Your task to perform on an android device: snooze an email in the gmail app Image 0: 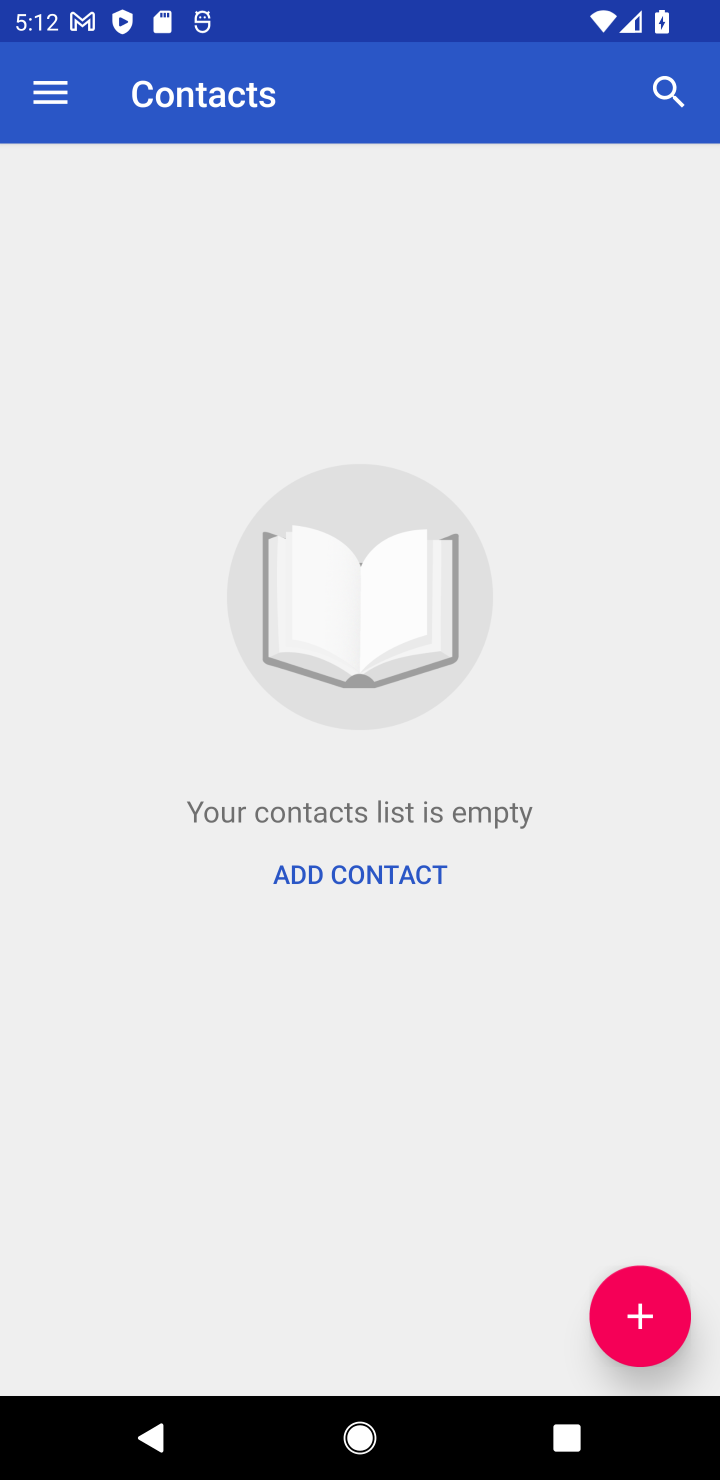
Step 0: press home button
Your task to perform on an android device: snooze an email in the gmail app Image 1: 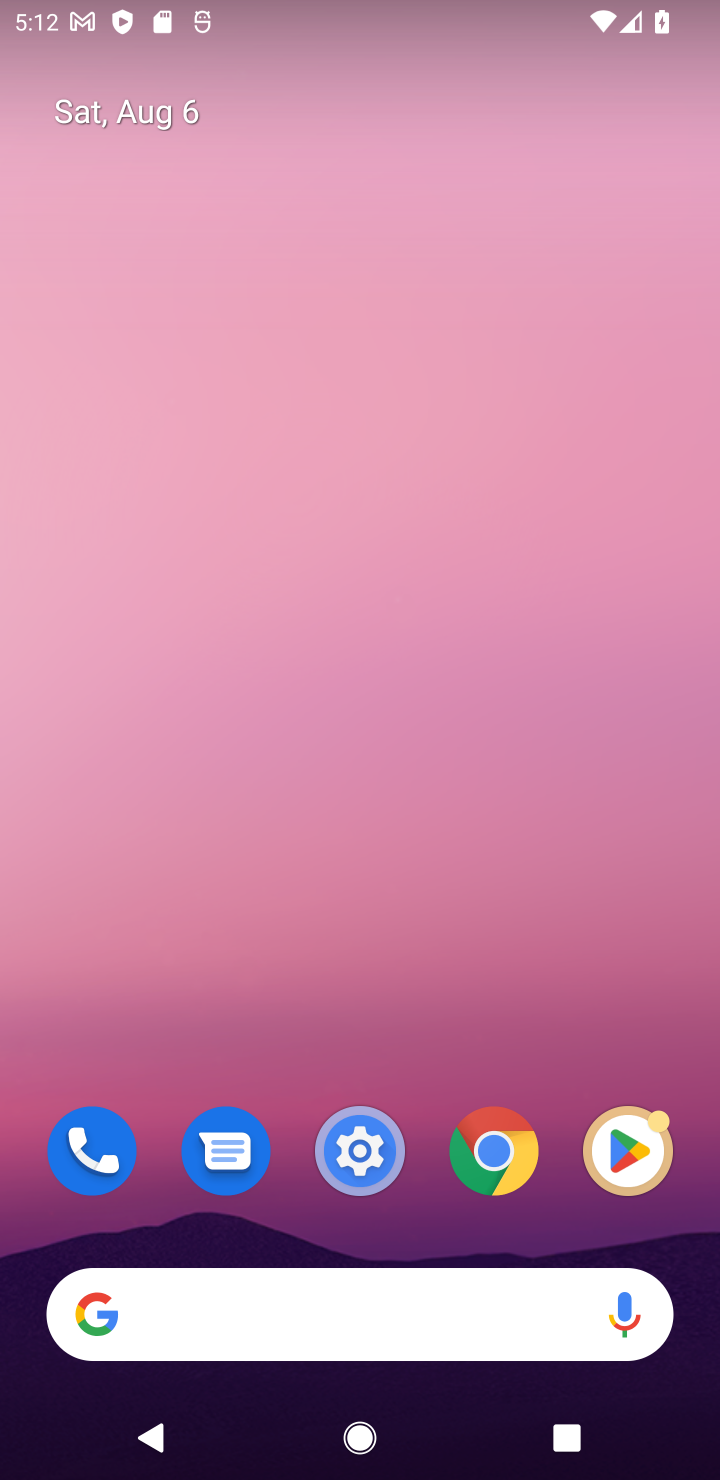
Step 1: drag from (265, 1388) to (248, 294)
Your task to perform on an android device: snooze an email in the gmail app Image 2: 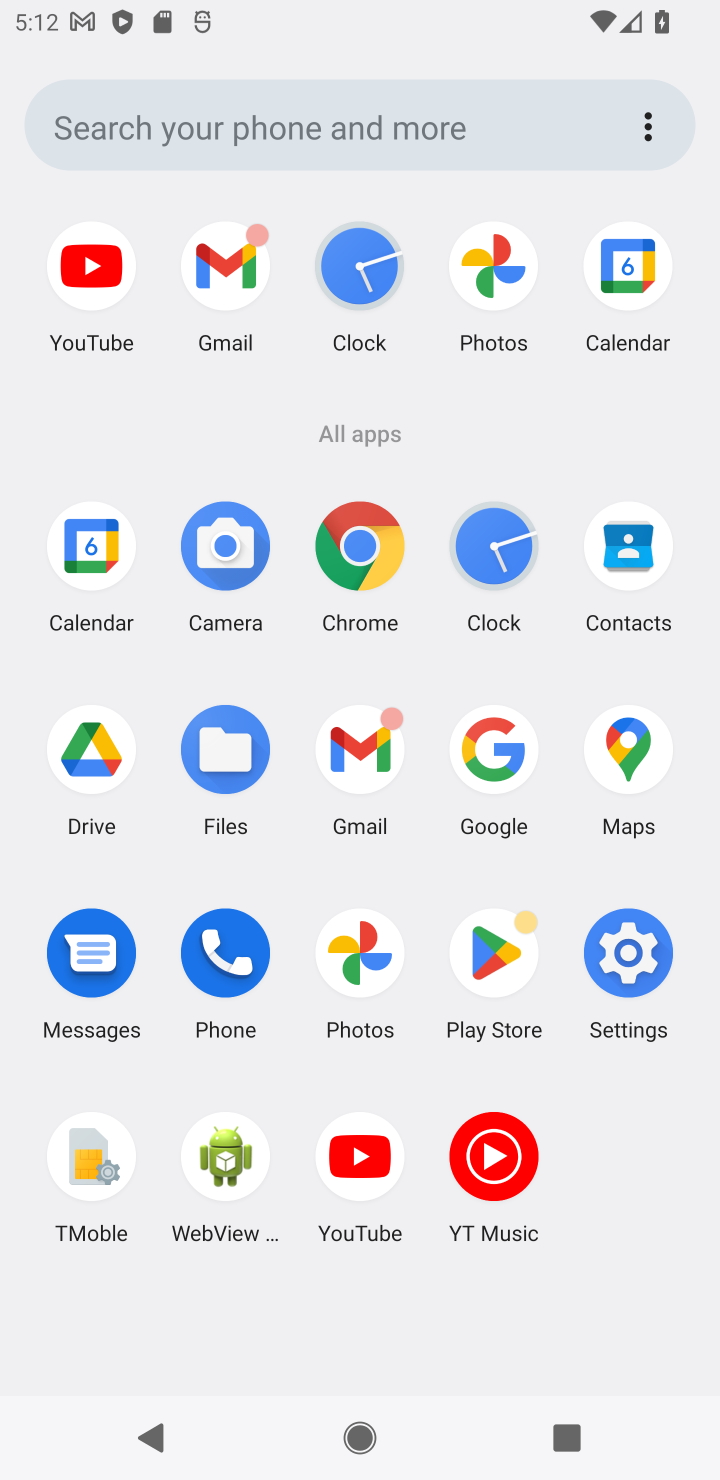
Step 2: click (387, 737)
Your task to perform on an android device: snooze an email in the gmail app Image 3: 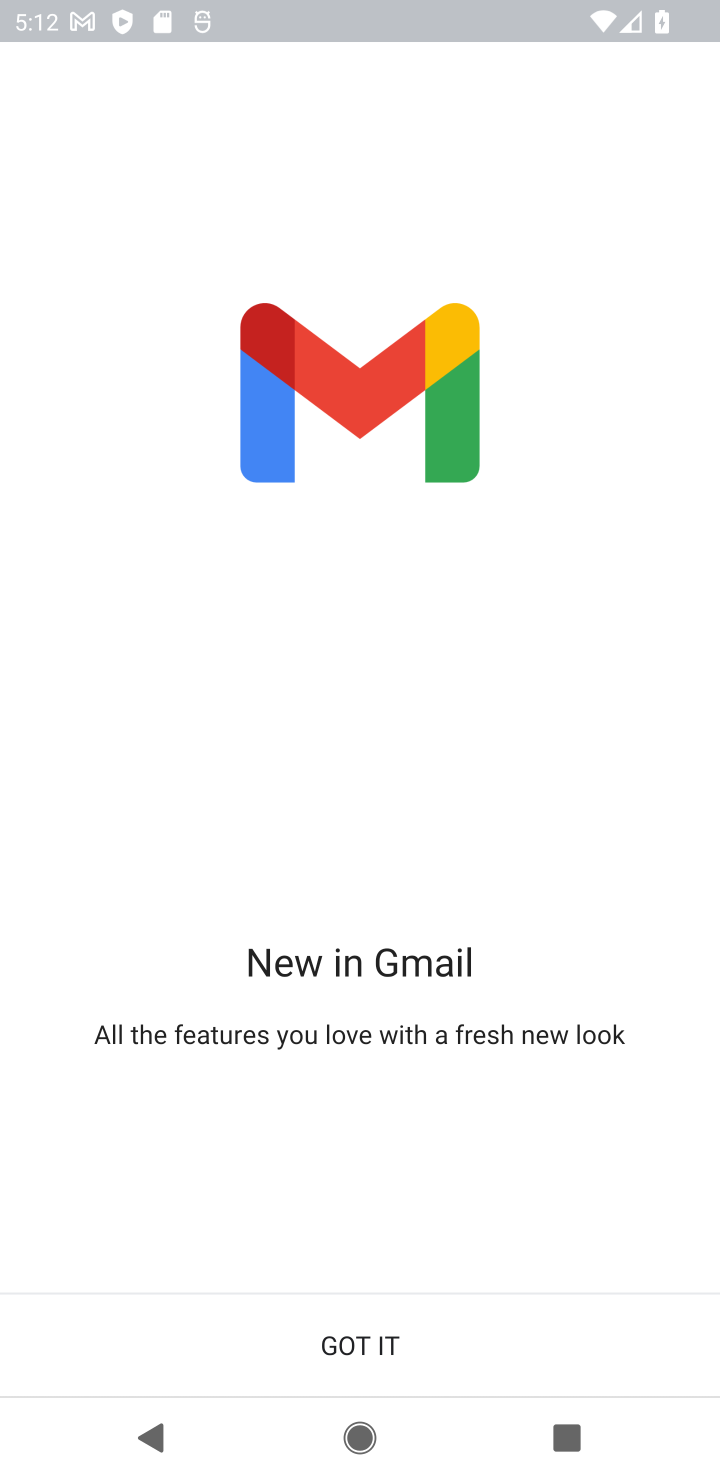
Step 3: click (355, 1361)
Your task to perform on an android device: snooze an email in the gmail app Image 4: 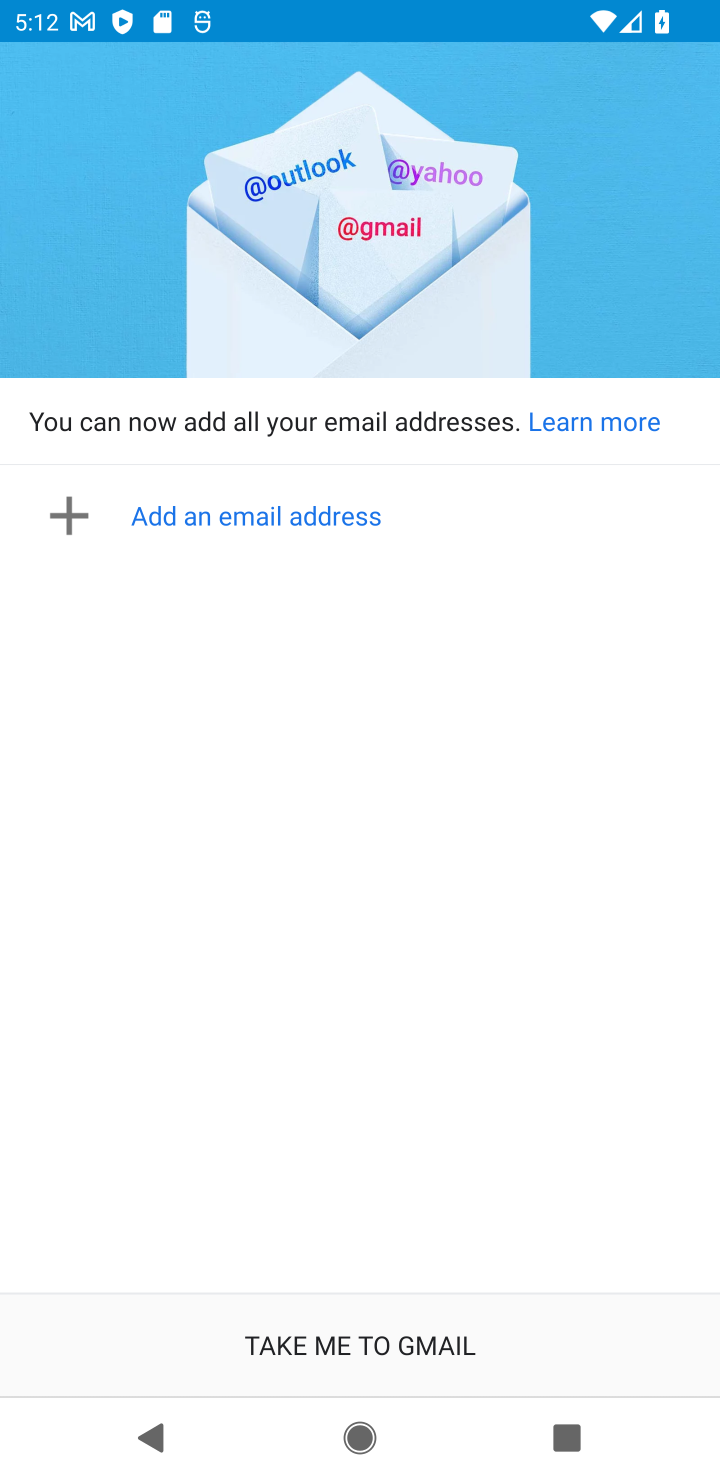
Step 4: click (359, 1355)
Your task to perform on an android device: snooze an email in the gmail app Image 5: 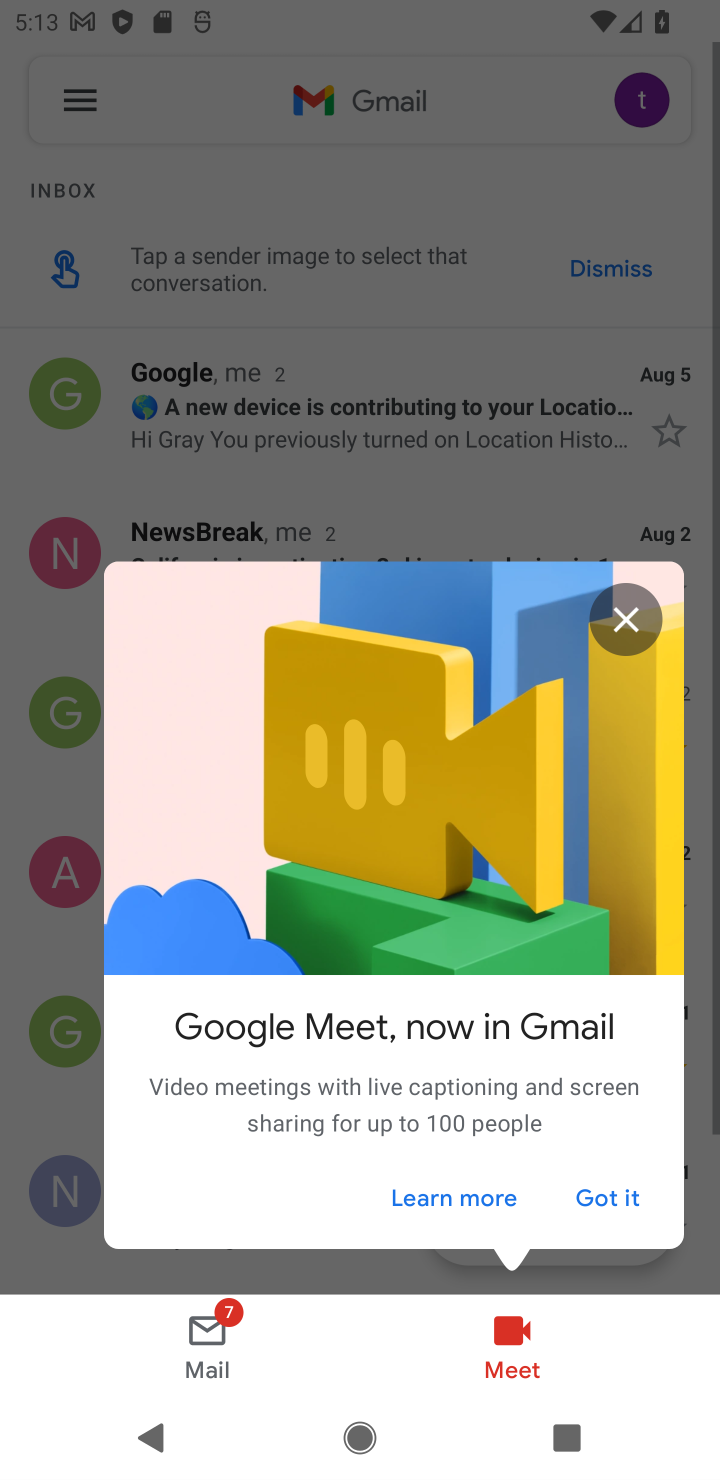
Step 5: click (301, 399)
Your task to perform on an android device: snooze an email in the gmail app Image 6: 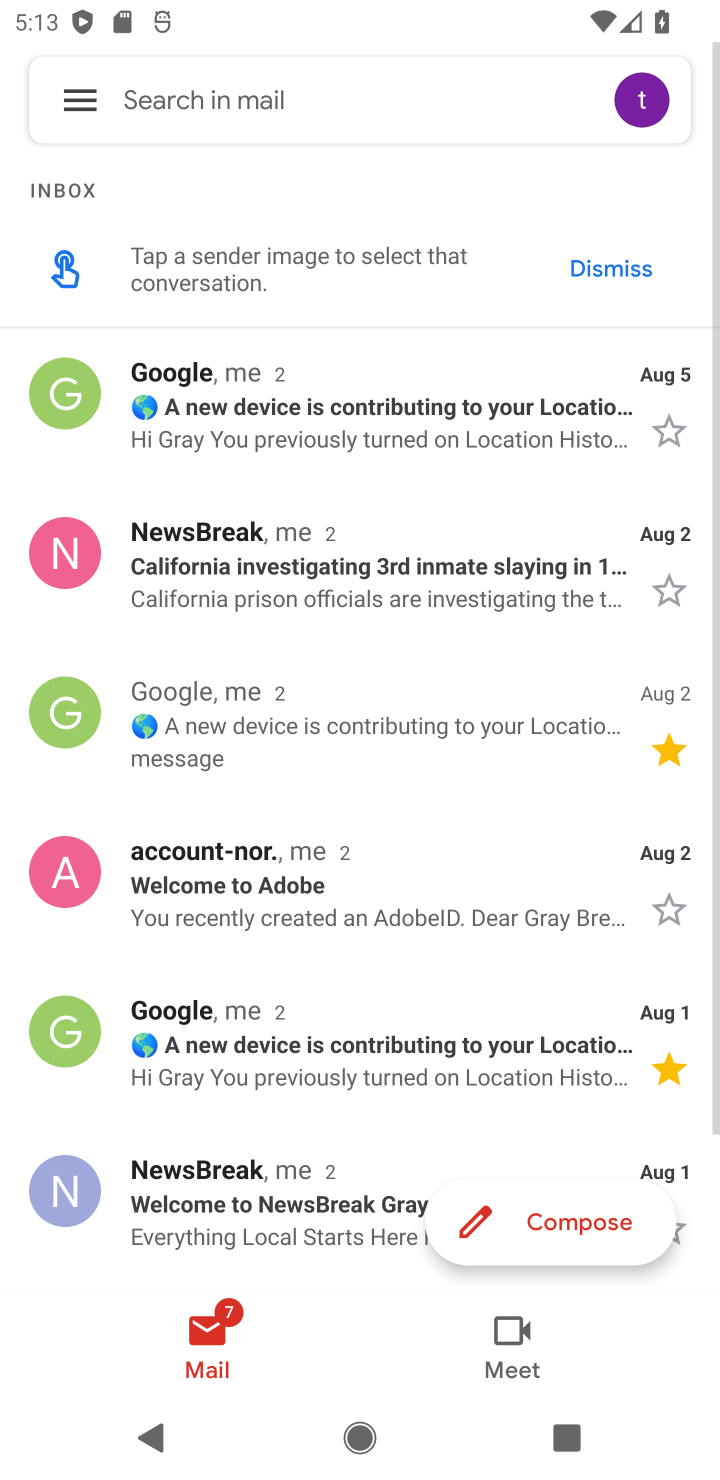
Step 6: click (363, 424)
Your task to perform on an android device: snooze an email in the gmail app Image 7: 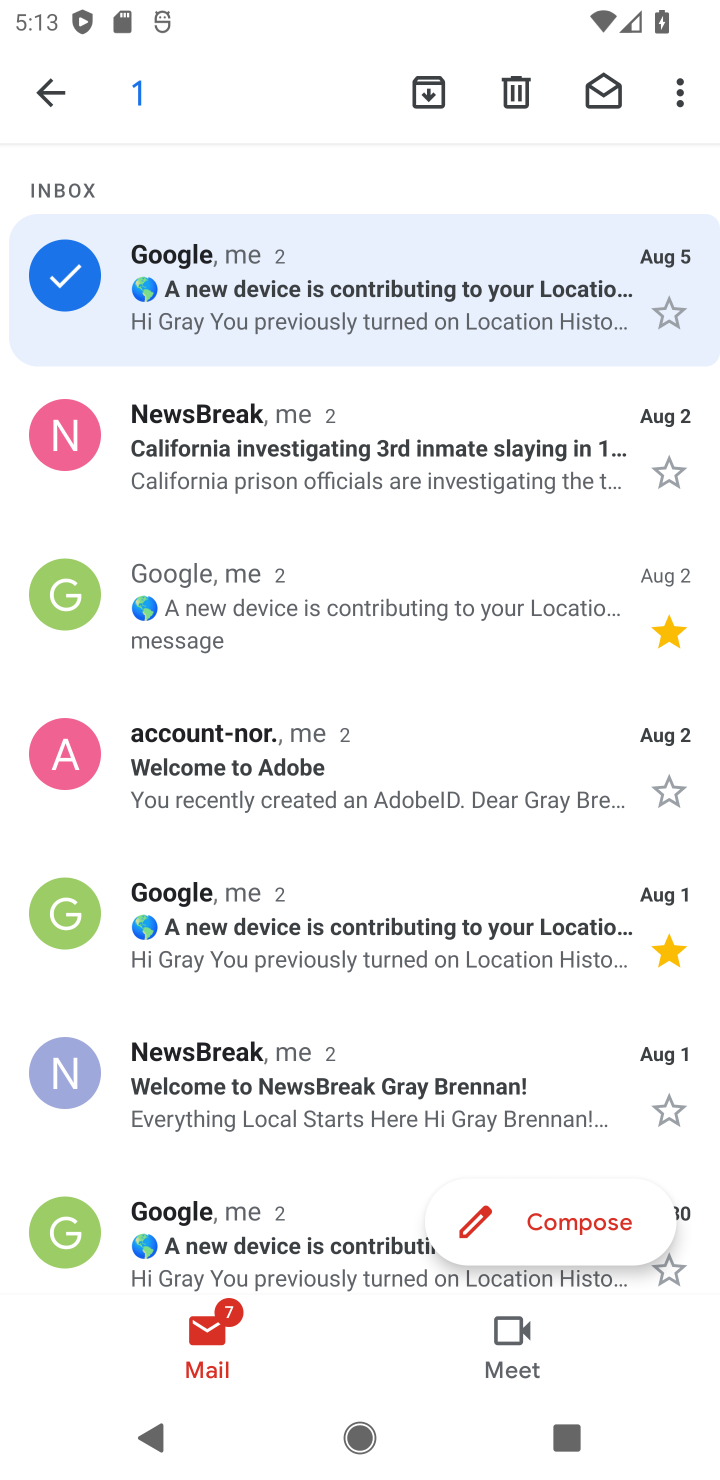
Step 7: click (672, 90)
Your task to perform on an android device: snooze an email in the gmail app Image 8: 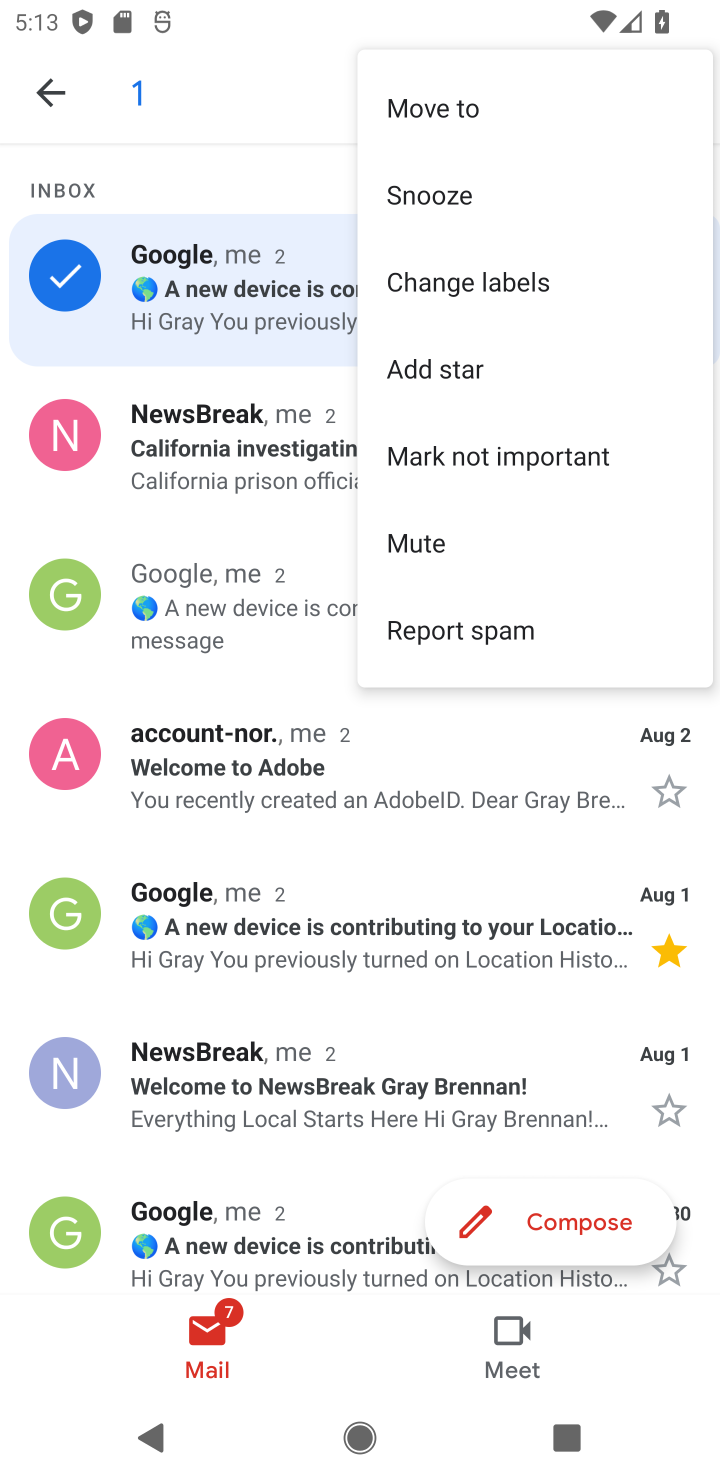
Step 8: click (500, 183)
Your task to perform on an android device: snooze an email in the gmail app Image 9: 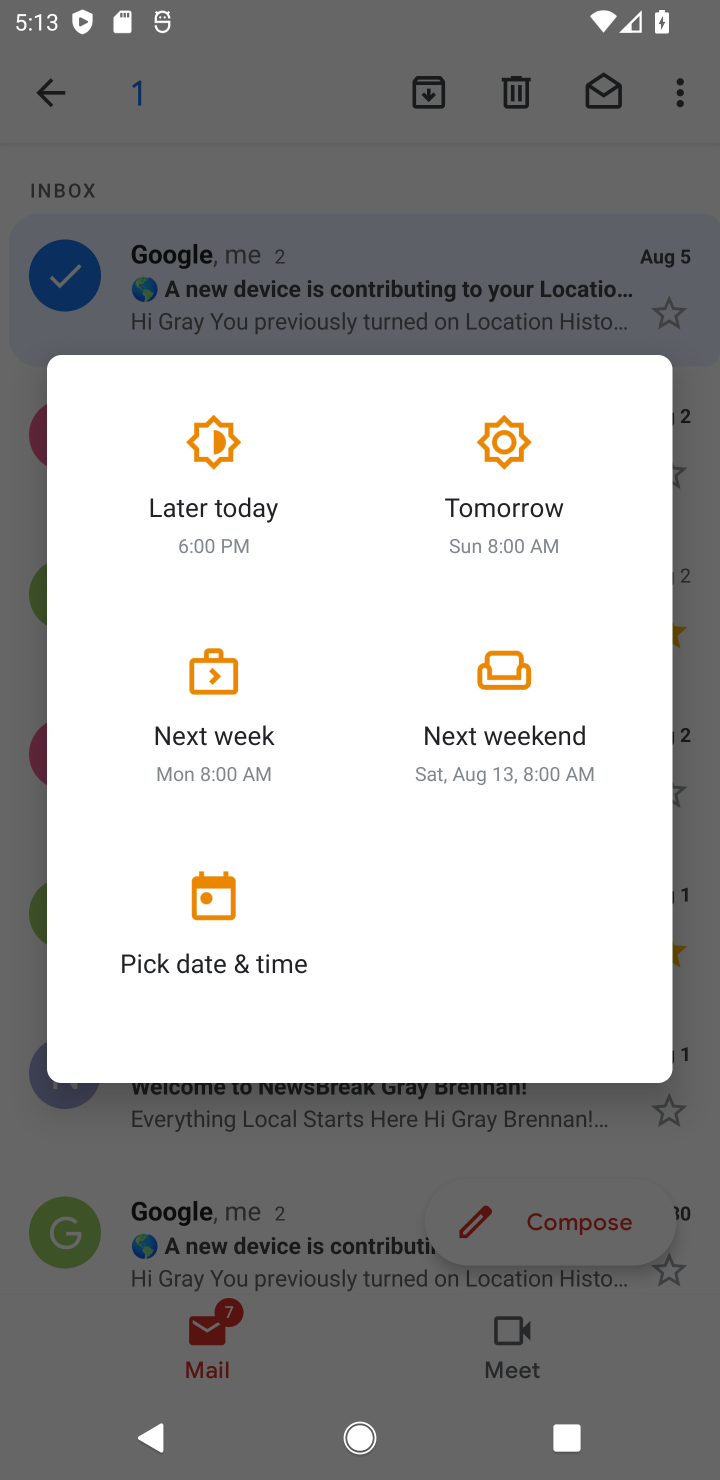
Step 9: click (231, 466)
Your task to perform on an android device: snooze an email in the gmail app Image 10: 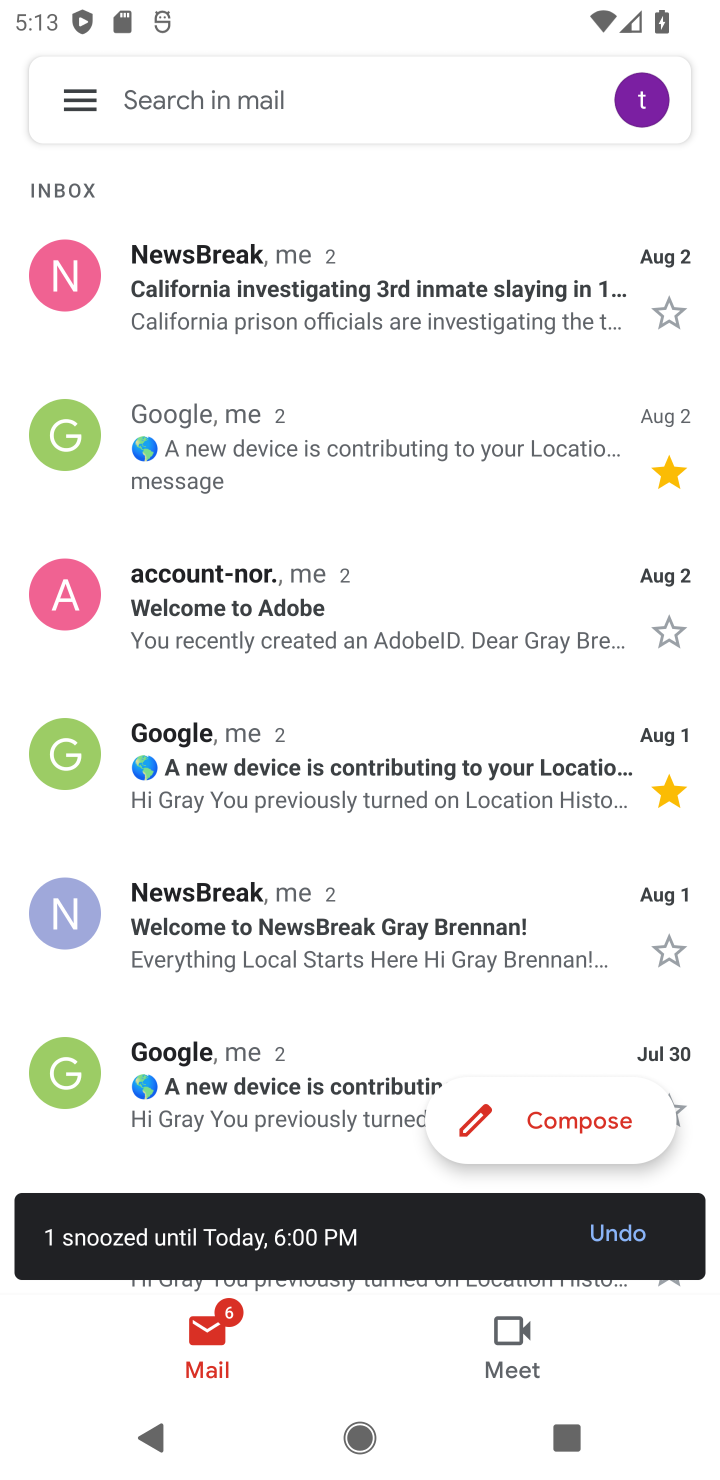
Step 10: task complete